Your task to perform on an android device: Go to notification settings Image 0: 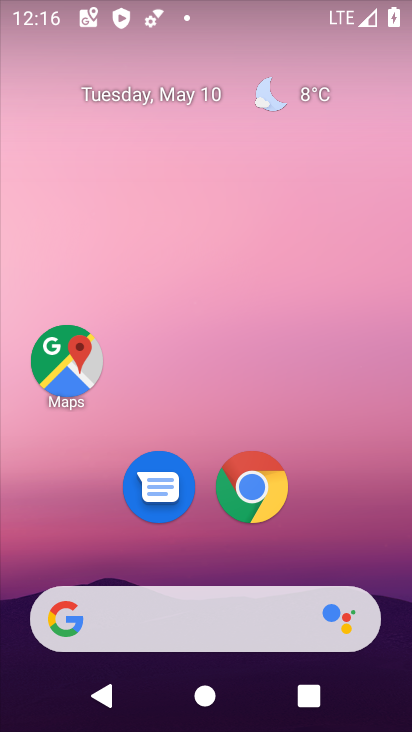
Step 0: drag from (201, 544) to (246, 119)
Your task to perform on an android device: Go to notification settings Image 1: 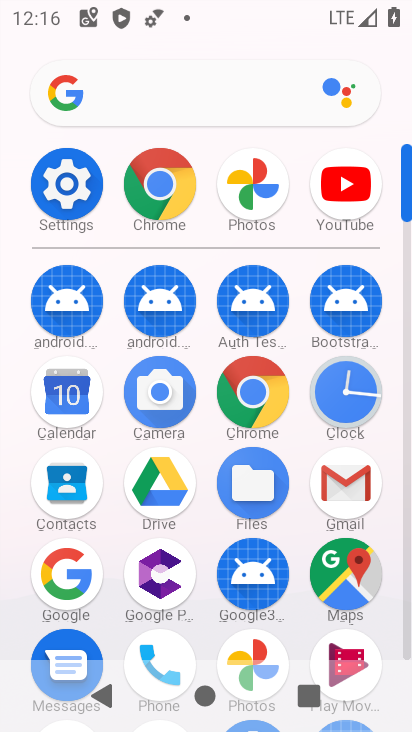
Step 1: click (66, 180)
Your task to perform on an android device: Go to notification settings Image 2: 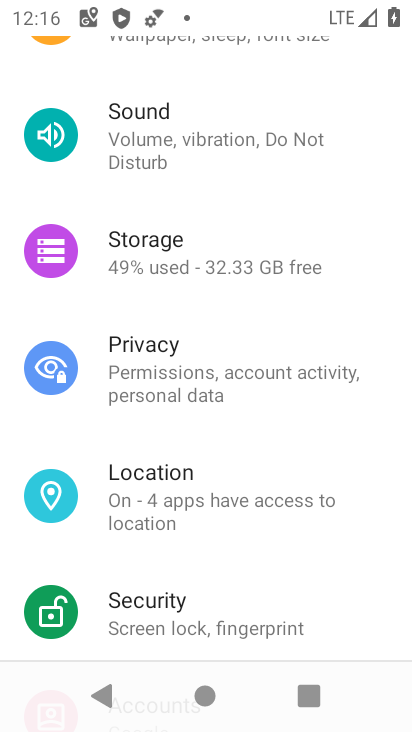
Step 2: drag from (221, 79) to (186, 667)
Your task to perform on an android device: Go to notification settings Image 3: 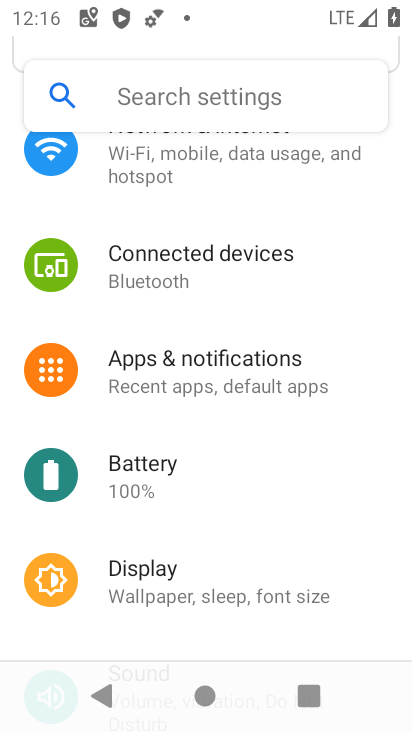
Step 3: click (212, 371)
Your task to perform on an android device: Go to notification settings Image 4: 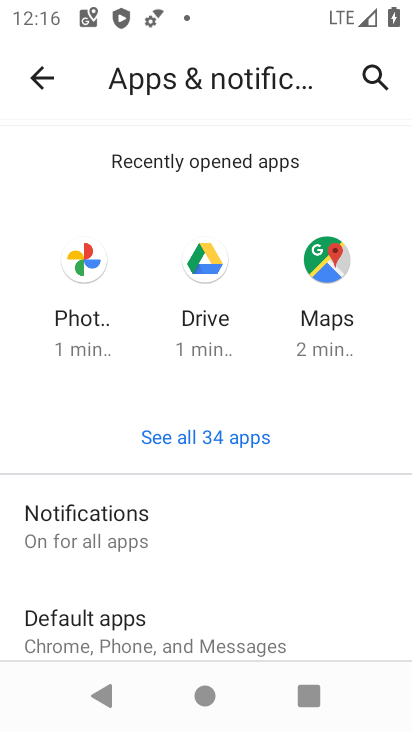
Step 4: click (154, 522)
Your task to perform on an android device: Go to notification settings Image 5: 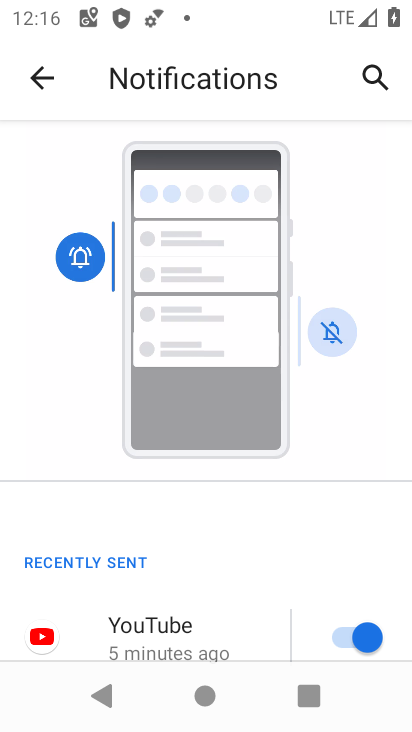
Step 5: drag from (245, 612) to (275, 245)
Your task to perform on an android device: Go to notification settings Image 6: 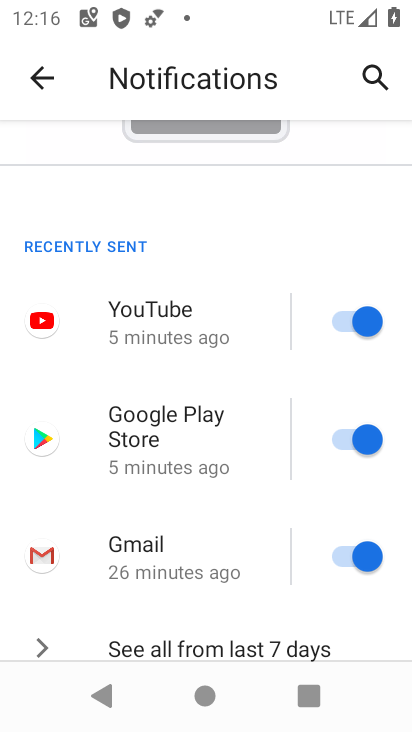
Step 6: drag from (246, 619) to (253, 108)
Your task to perform on an android device: Go to notification settings Image 7: 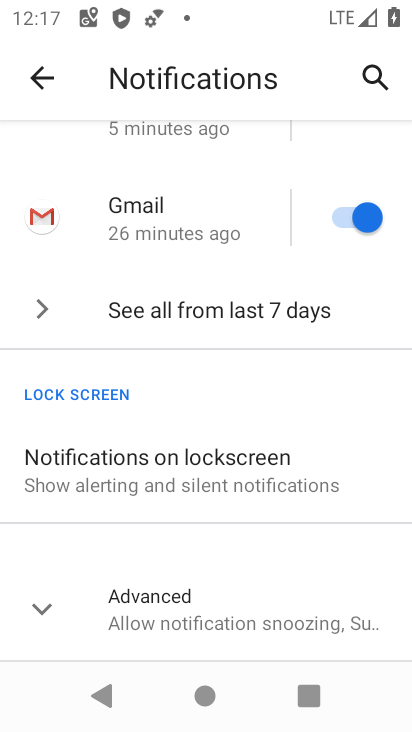
Step 7: drag from (200, 295) to (176, 625)
Your task to perform on an android device: Go to notification settings Image 8: 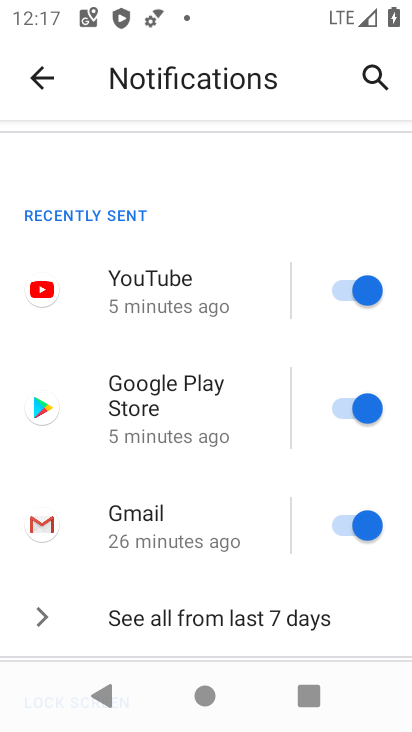
Step 8: click (348, 283)
Your task to perform on an android device: Go to notification settings Image 9: 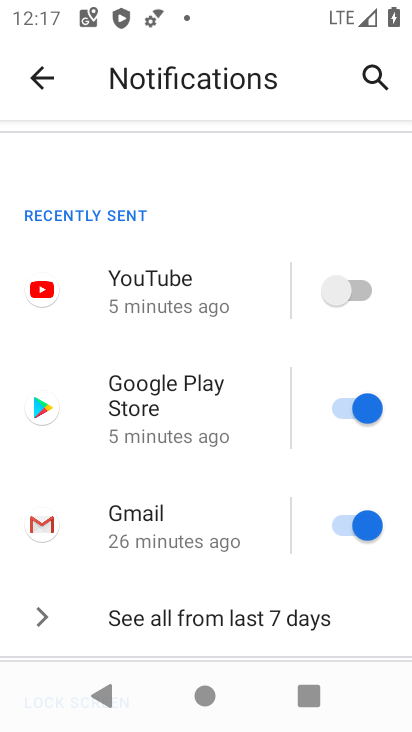
Step 9: click (350, 405)
Your task to perform on an android device: Go to notification settings Image 10: 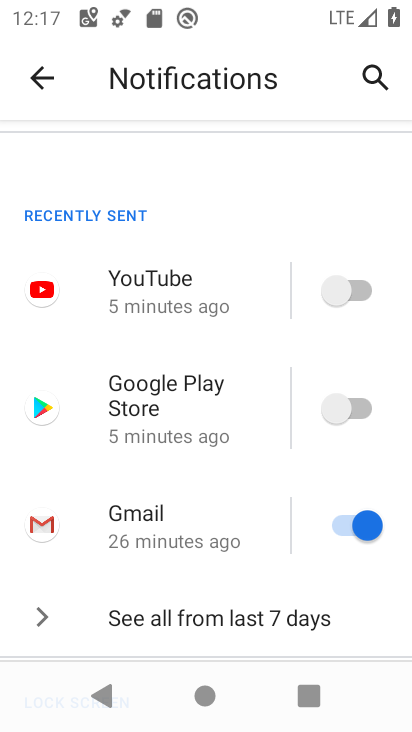
Step 10: click (351, 520)
Your task to perform on an android device: Go to notification settings Image 11: 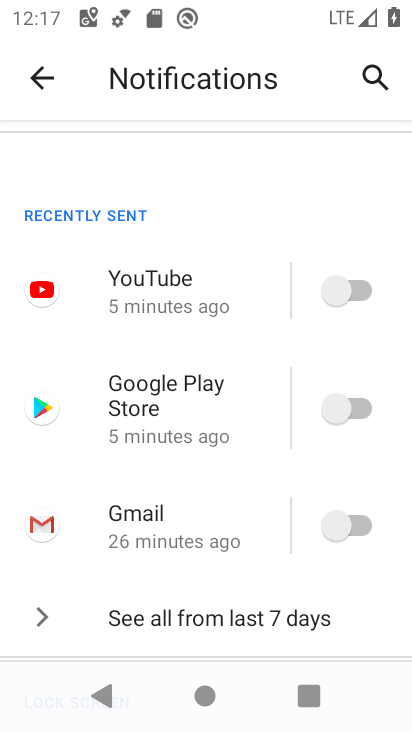
Step 11: task complete